Your task to perform on an android device: show emergency info Image 0: 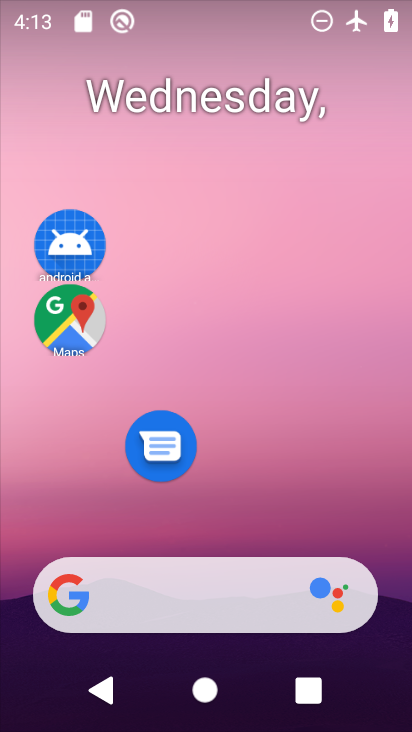
Step 0: drag from (246, 548) to (246, 50)
Your task to perform on an android device: show emergency info Image 1: 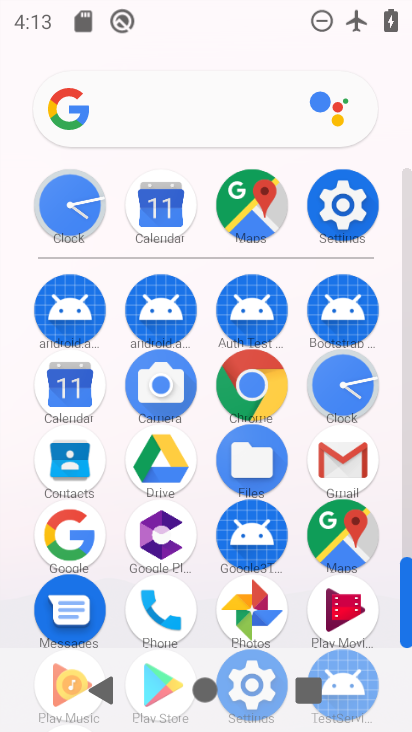
Step 1: click (321, 205)
Your task to perform on an android device: show emergency info Image 2: 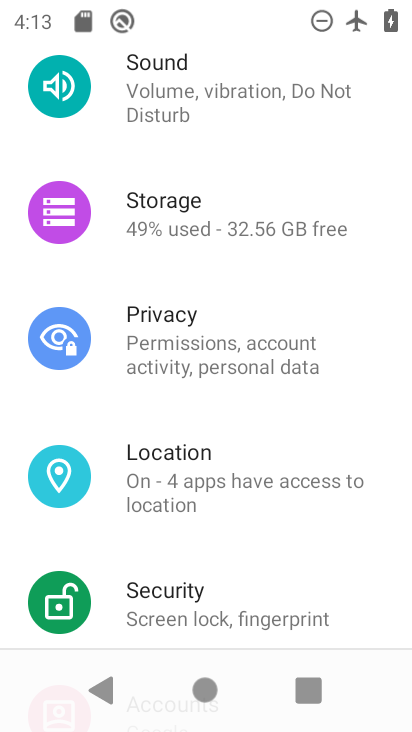
Step 2: drag from (223, 157) to (227, 544)
Your task to perform on an android device: show emergency info Image 3: 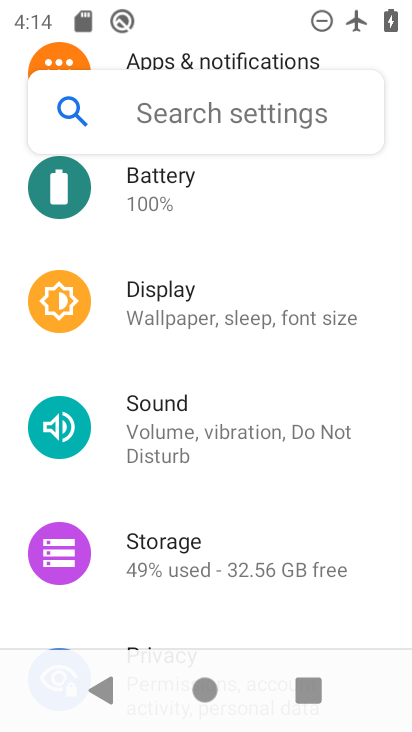
Step 3: drag from (207, 515) to (234, 129)
Your task to perform on an android device: show emergency info Image 4: 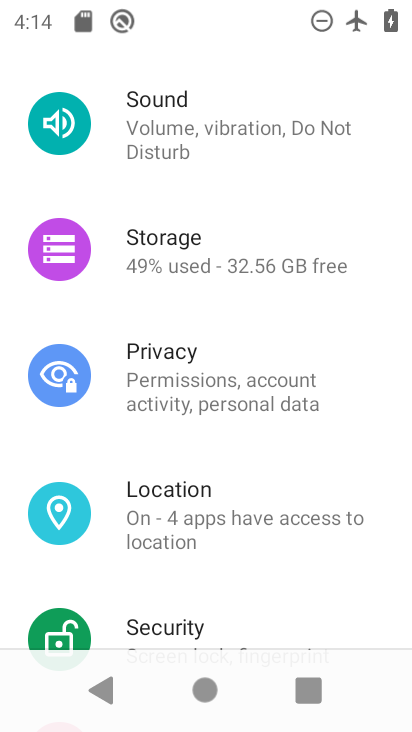
Step 4: drag from (242, 567) to (284, 174)
Your task to perform on an android device: show emergency info Image 5: 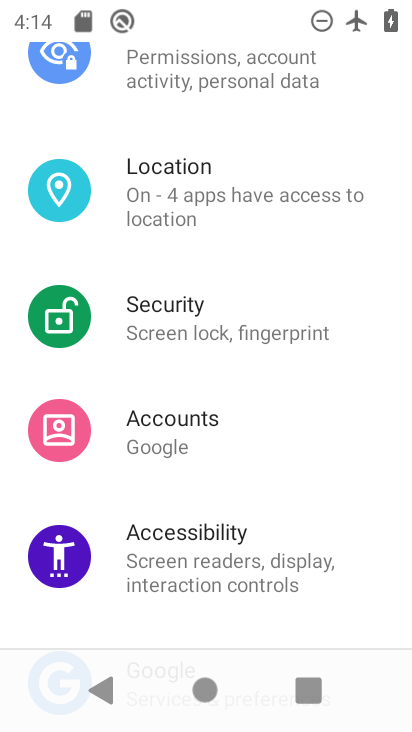
Step 5: drag from (271, 553) to (278, 164)
Your task to perform on an android device: show emergency info Image 6: 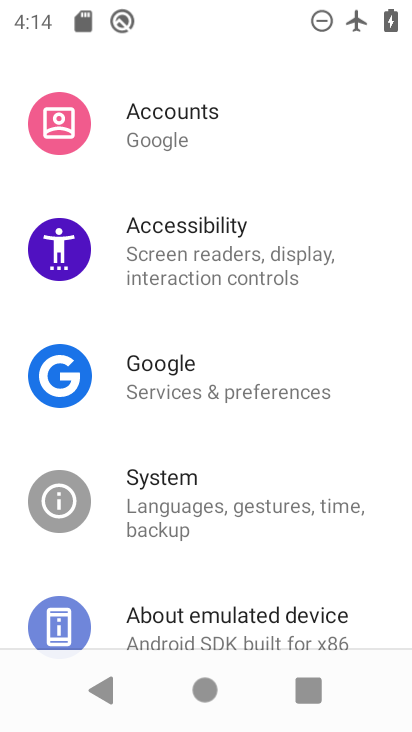
Step 6: drag from (276, 634) to (297, 368)
Your task to perform on an android device: show emergency info Image 7: 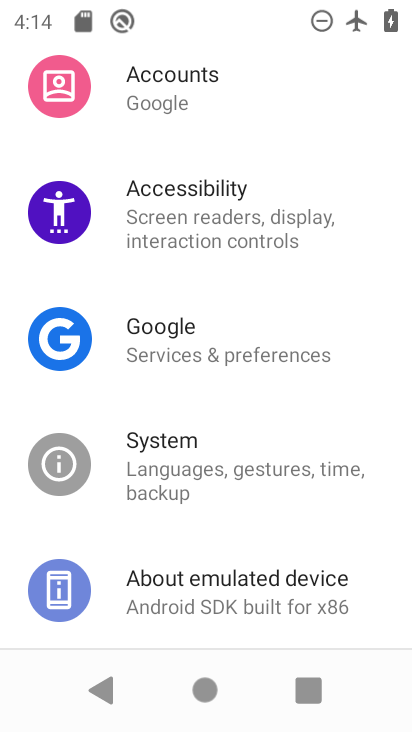
Step 7: click (273, 579)
Your task to perform on an android device: show emergency info Image 8: 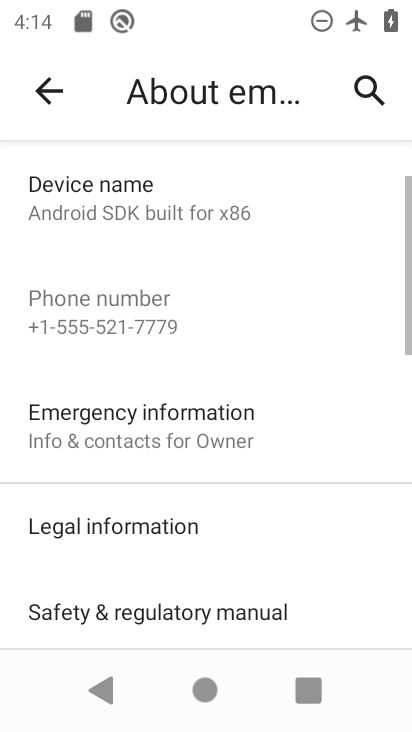
Step 8: click (220, 441)
Your task to perform on an android device: show emergency info Image 9: 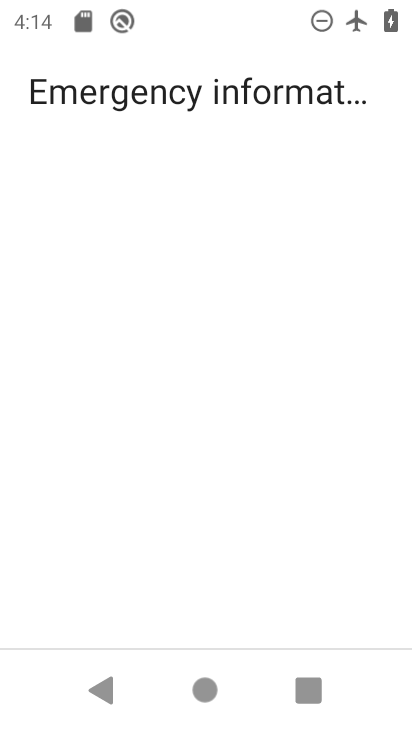
Step 9: task complete